Your task to perform on an android device: move an email to a new category in the gmail app Image 0: 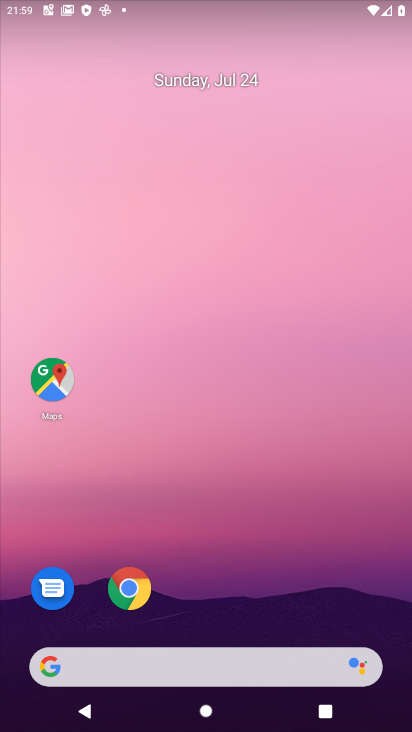
Step 0: drag from (176, 641) to (198, 114)
Your task to perform on an android device: move an email to a new category in the gmail app Image 1: 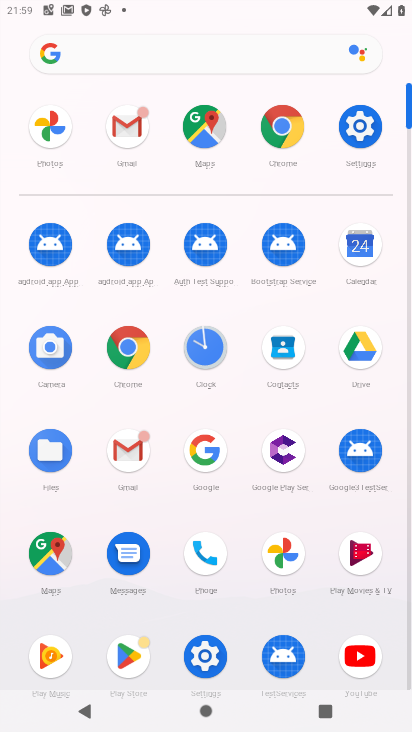
Step 1: click (135, 447)
Your task to perform on an android device: move an email to a new category in the gmail app Image 2: 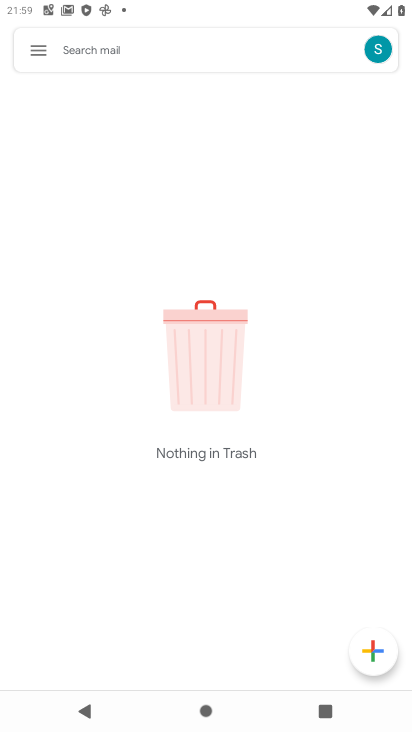
Step 2: click (32, 52)
Your task to perform on an android device: move an email to a new category in the gmail app Image 3: 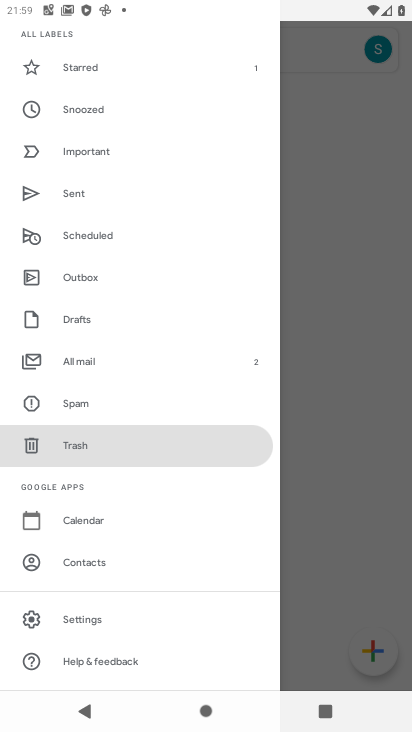
Step 3: click (106, 354)
Your task to perform on an android device: move an email to a new category in the gmail app Image 4: 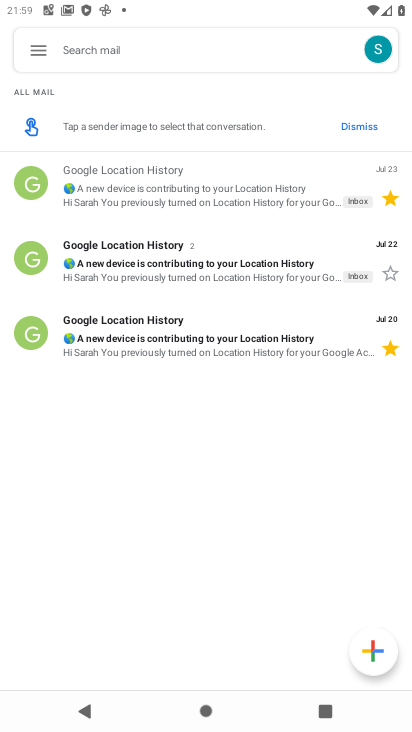
Step 4: click (35, 190)
Your task to perform on an android device: move an email to a new category in the gmail app Image 5: 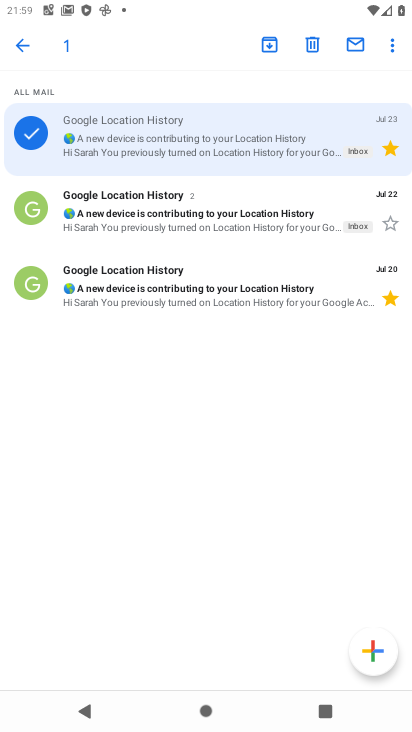
Step 5: click (395, 43)
Your task to perform on an android device: move an email to a new category in the gmail app Image 6: 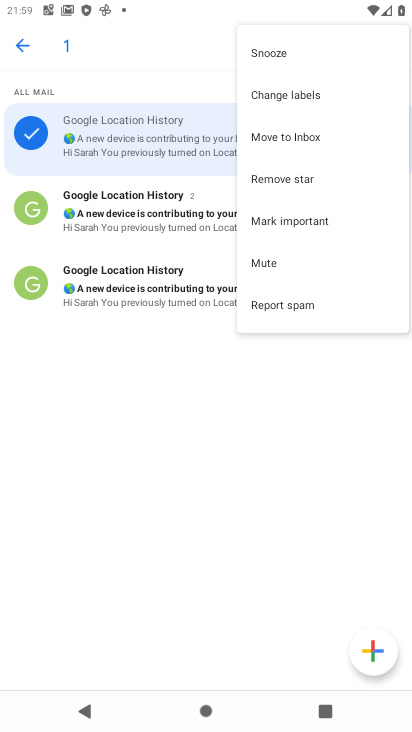
Step 6: click (291, 93)
Your task to perform on an android device: move an email to a new category in the gmail app Image 7: 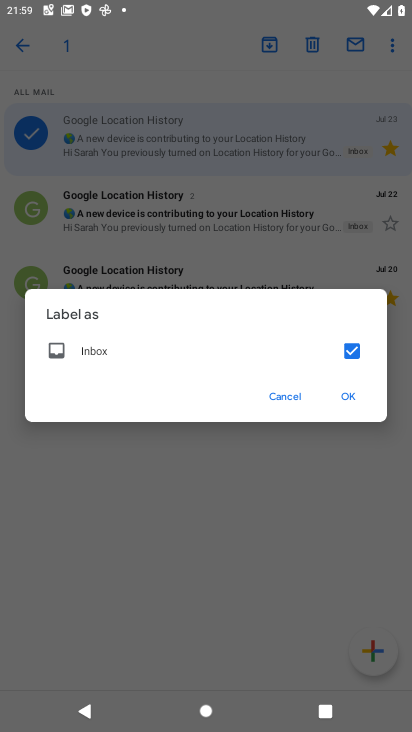
Step 7: click (350, 354)
Your task to perform on an android device: move an email to a new category in the gmail app Image 8: 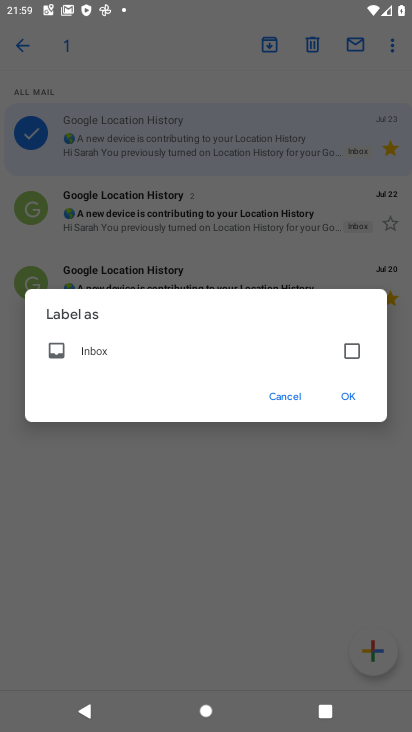
Step 8: click (343, 400)
Your task to perform on an android device: move an email to a new category in the gmail app Image 9: 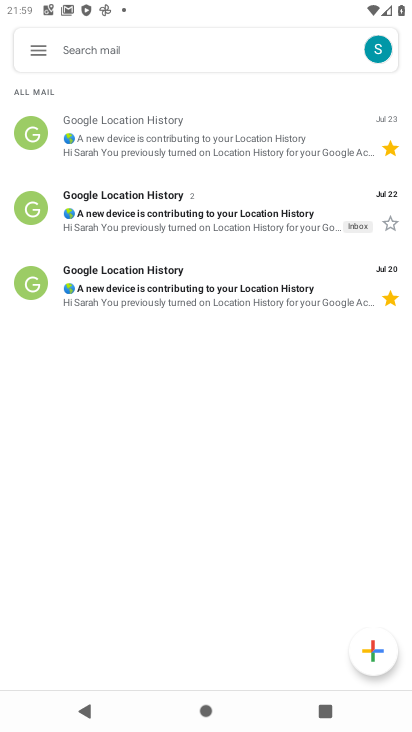
Step 9: task complete